Your task to perform on an android device: check battery use Image 0: 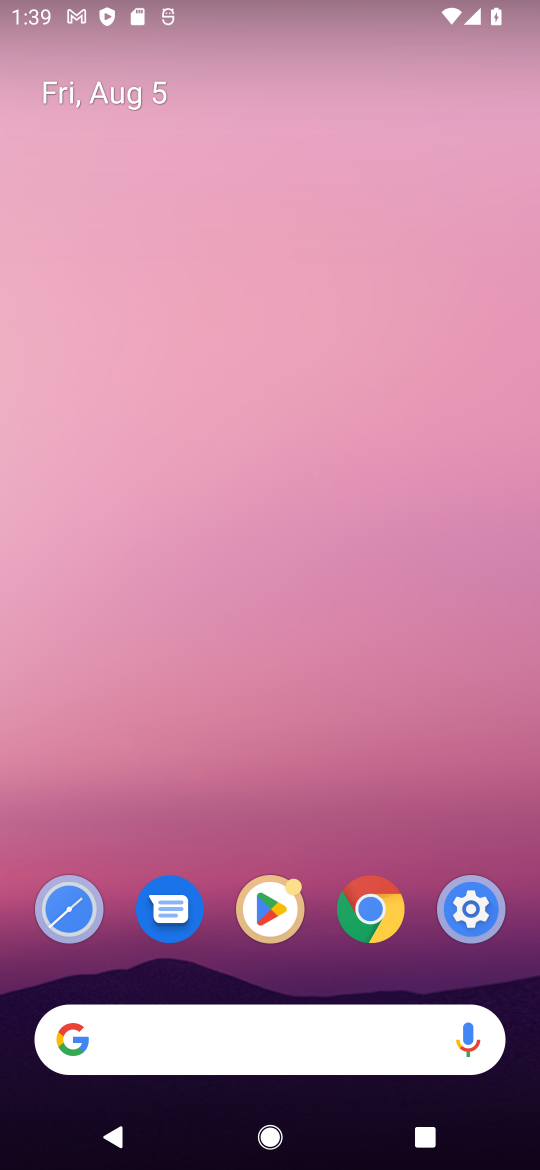
Step 0: click (451, 931)
Your task to perform on an android device: check battery use Image 1: 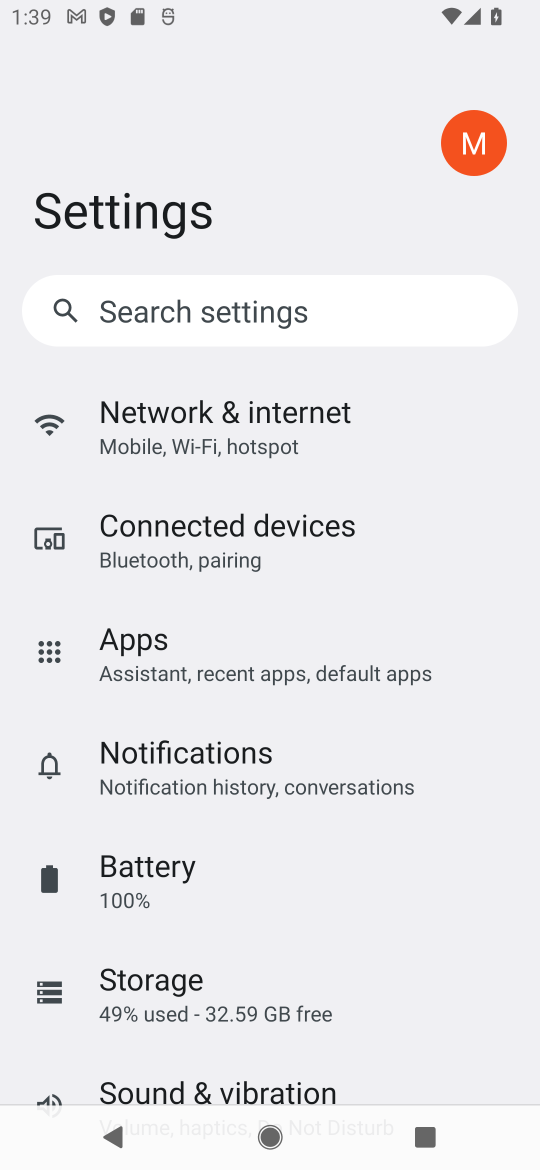
Step 1: click (221, 900)
Your task to perform on an android device: check battery use Image 2: 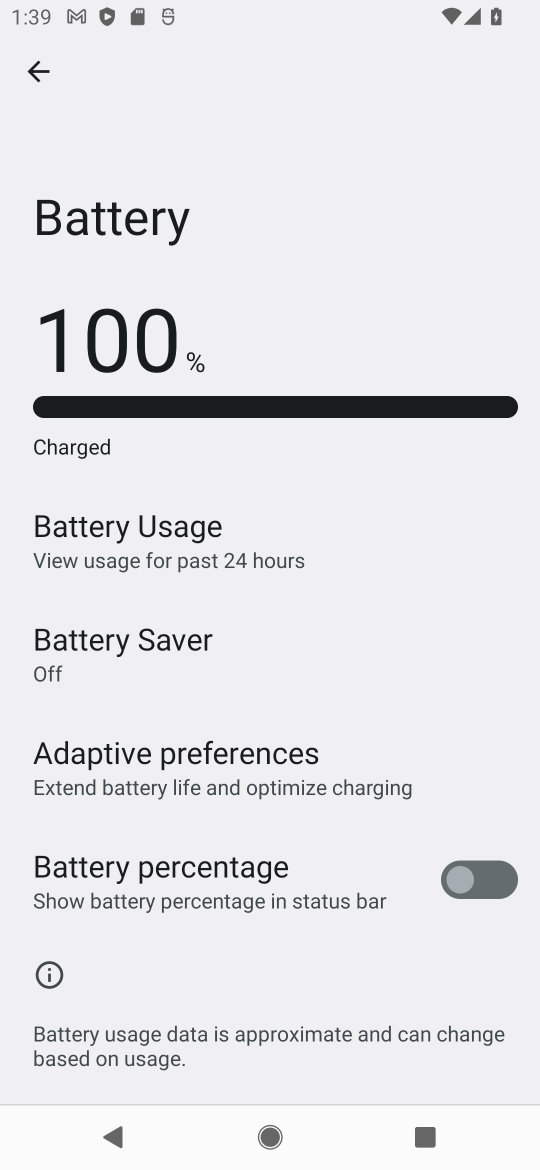
Step 2: task complete